Your task to perform on an android device: Show me popular videos on Youtube Image 0: 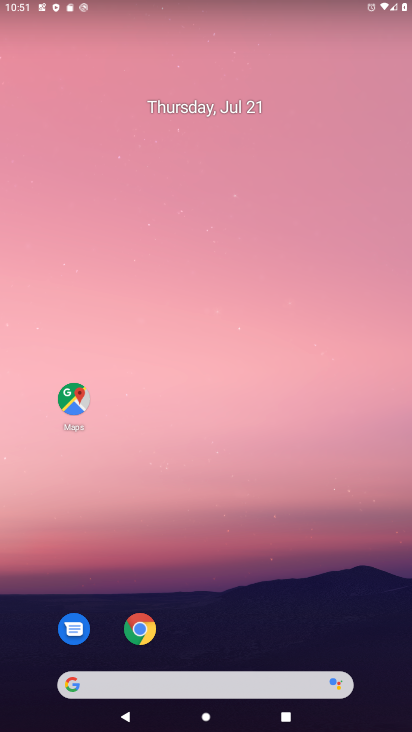
Step 0: press home button
Your task to perform on an android device: Show me popular videos on Youtube Image 1: 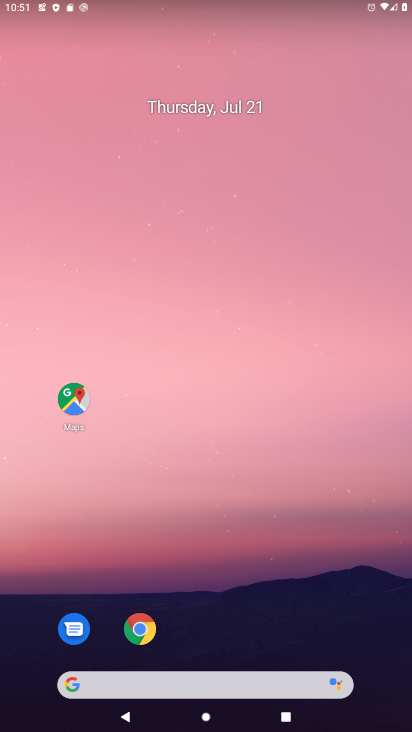
Step 1: drag from (170, 657) to (251, 52)
Your task to perform on an android device: Show me popular videos on Youtube Image 2: 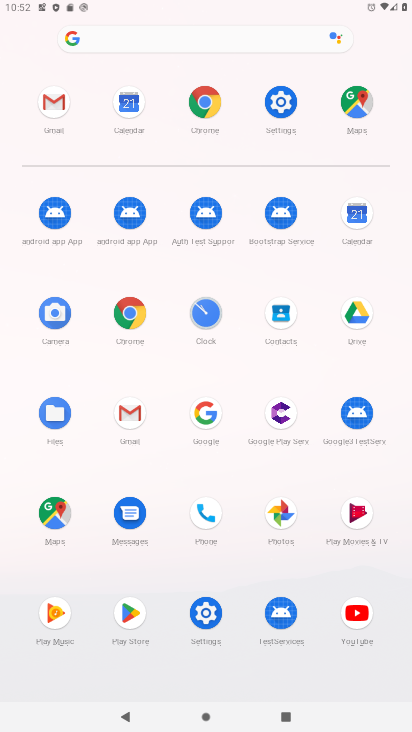
Step 2: click (343, 599)
Your task to perform on an android device: Show me popular videos on Youtube Image 3: 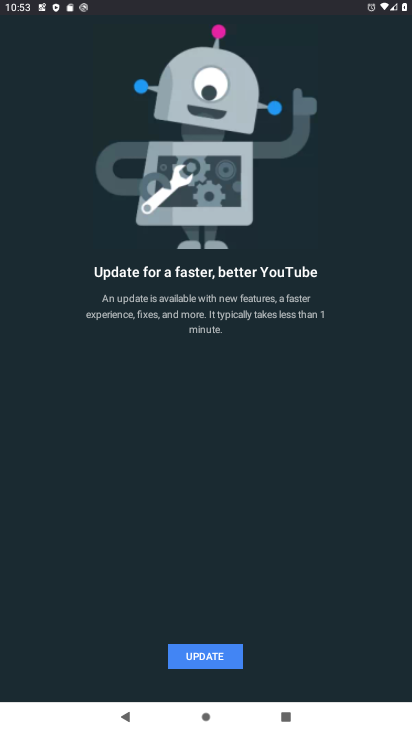
Step 3: click (181, 664)
Your task to perform on an android device: Show me popular videos on Youtube Image 4: 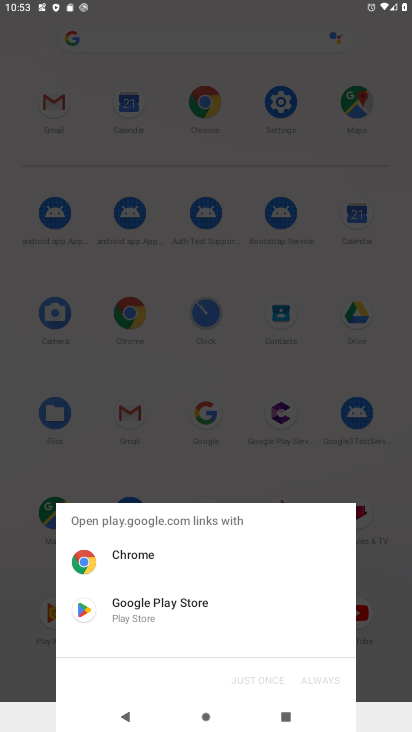
Step 4: click (137, 610)
Your task to perform on an android device: Show me popular videos on Youtube Image 5: 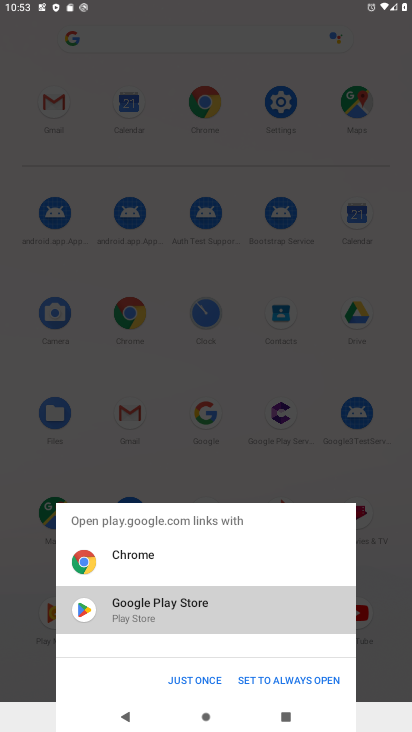
Step 5: click (192, 691)
Your task to perform on an android device: Show me popular videos on Youtube Image 6: 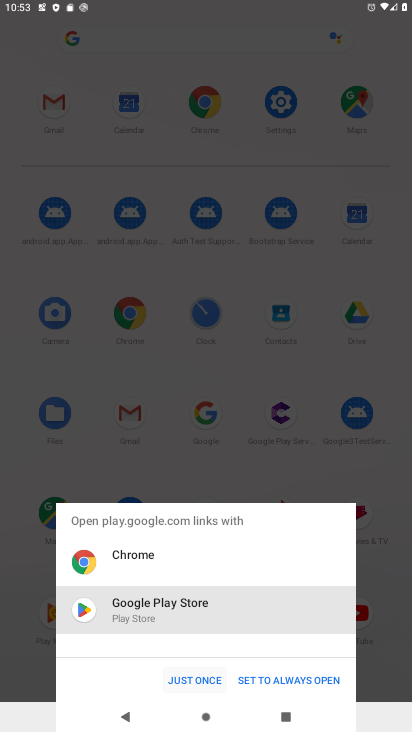
Step 6: click (188, 686)
Your task to perform on an android device: Show me popular videos on Youtube Image 7: 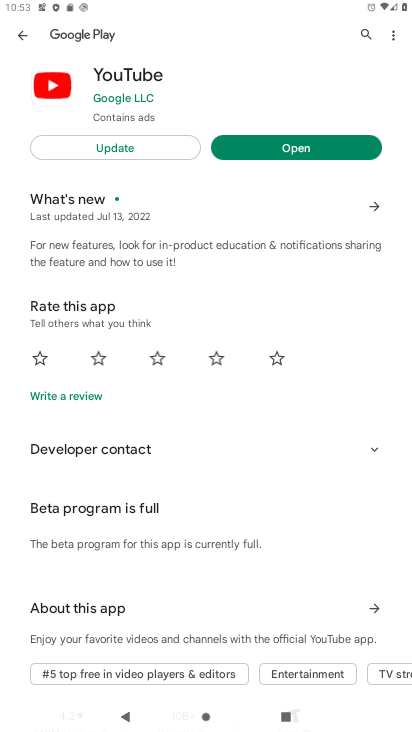
Step 7: click (66, 157)
Your task to perform on an android device: Show me popular videos on Youtube Image 8: 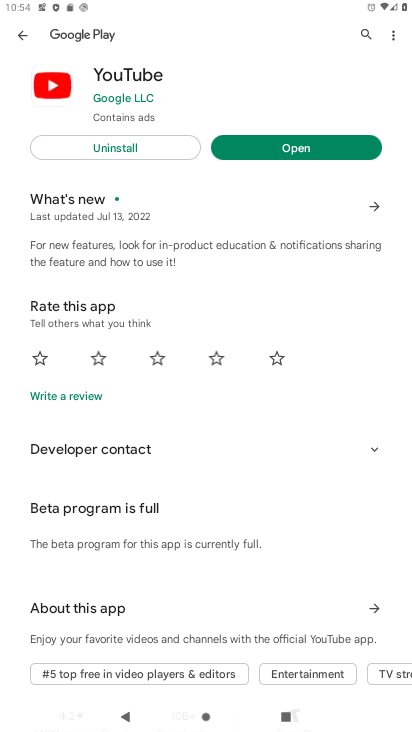
Step 8: click (317, 147)
Your task to perform on an android device: Show me popular videos on Youtube Image 9: 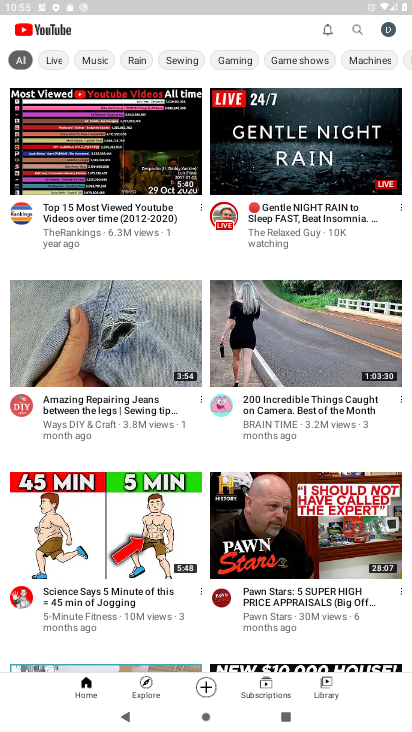
Step 9: click (356, 34)
Your task to perform on an android device: Show me popular videos on Youtube Image 10: 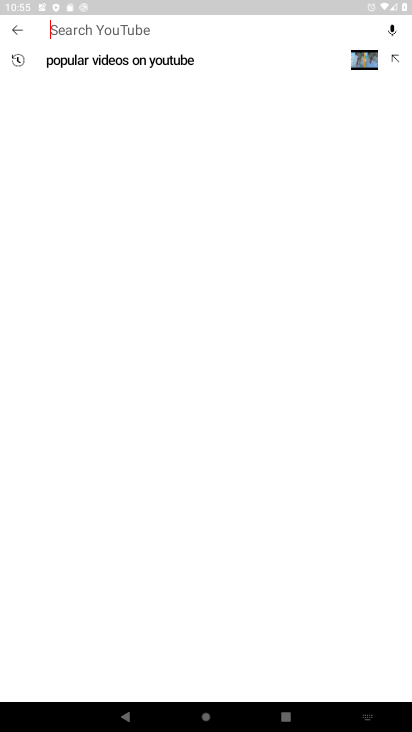
Step 10: type " popular videos on Youtube"
Your task to perform on an android device: Show me popular videos on Youtube Image 11: 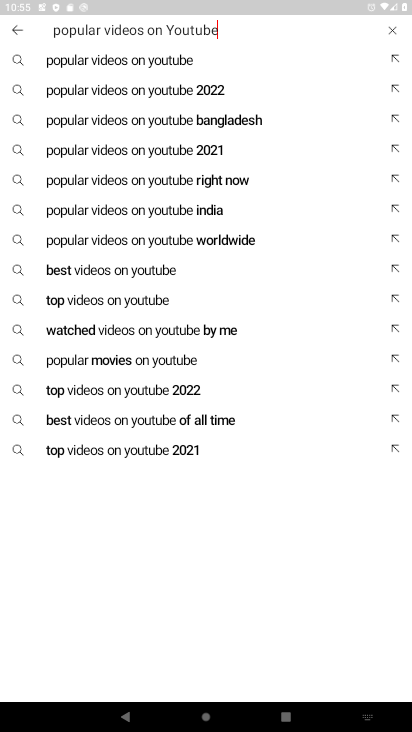
Step 11: type ""
Your task to perform on an android device: Show me popular videos on Youtube Image 12: 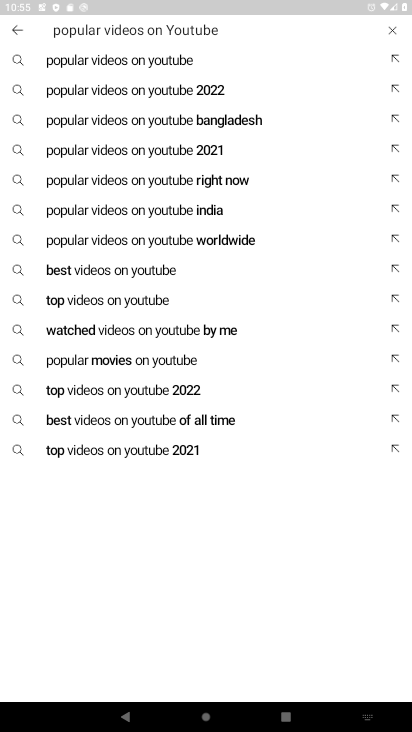
Step 12: click (189, 55)
Your task to perform on an android device: Show me popular videos on Youtube Image 13: 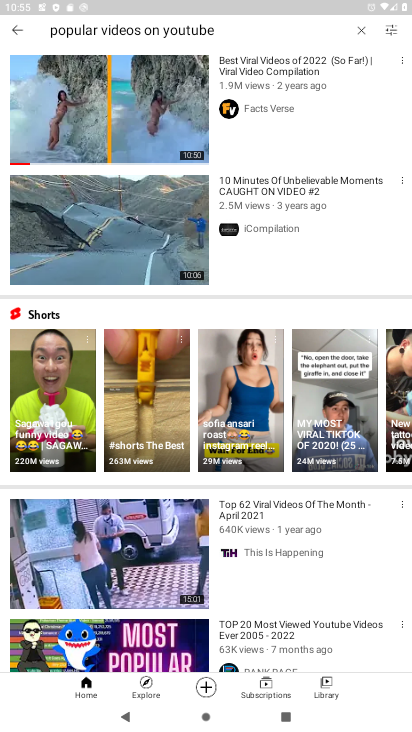
Step 13: task complete